Your task to perform on an android device: Open calendar and show me the third week of next month Image 0: 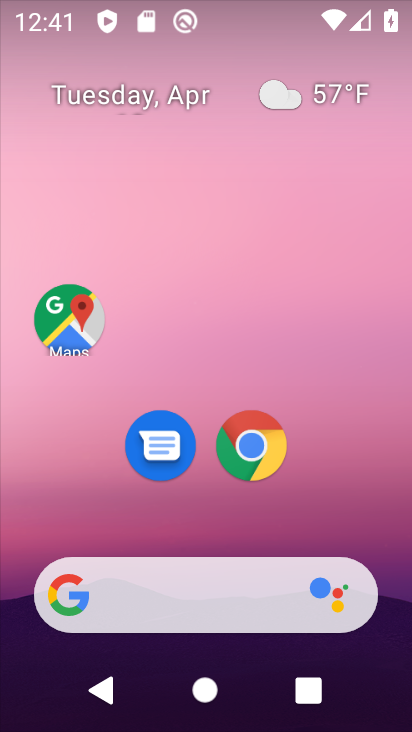
Step 0: drag from (329, 440) to (360, 121)
Your task to perform on an android device: Open calendar and show me the third week of next month Image 1: 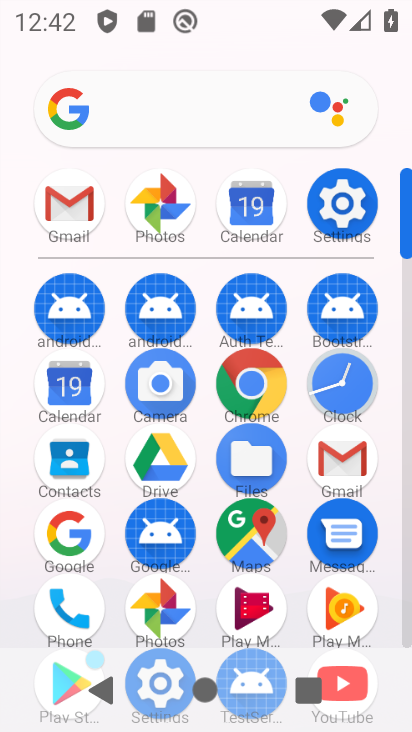
Step 1: click (249, 200)
Your task to perform on an android device: Open calendar and show me the third week of next month Image 2: 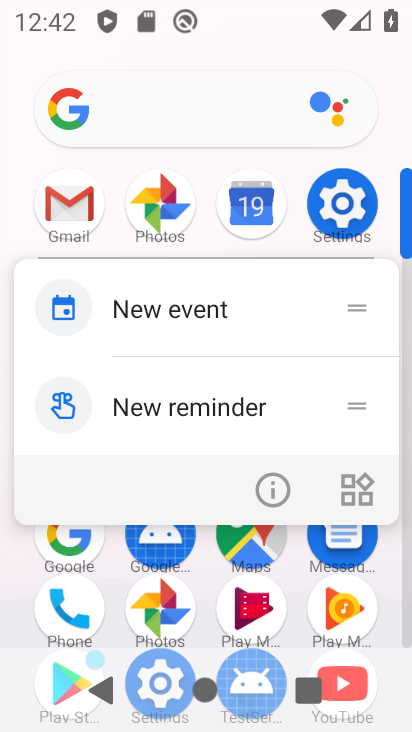
Step 2: click (249, 200)
Your task to perform on an android device: Open calendar and show me the third week of next month Image 3: 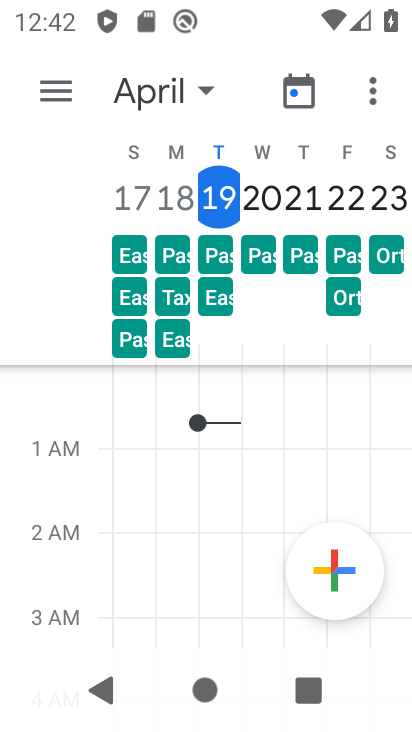
Step 3: task complete